Your task to perform on an android device: Go to privacy settings Image 0: 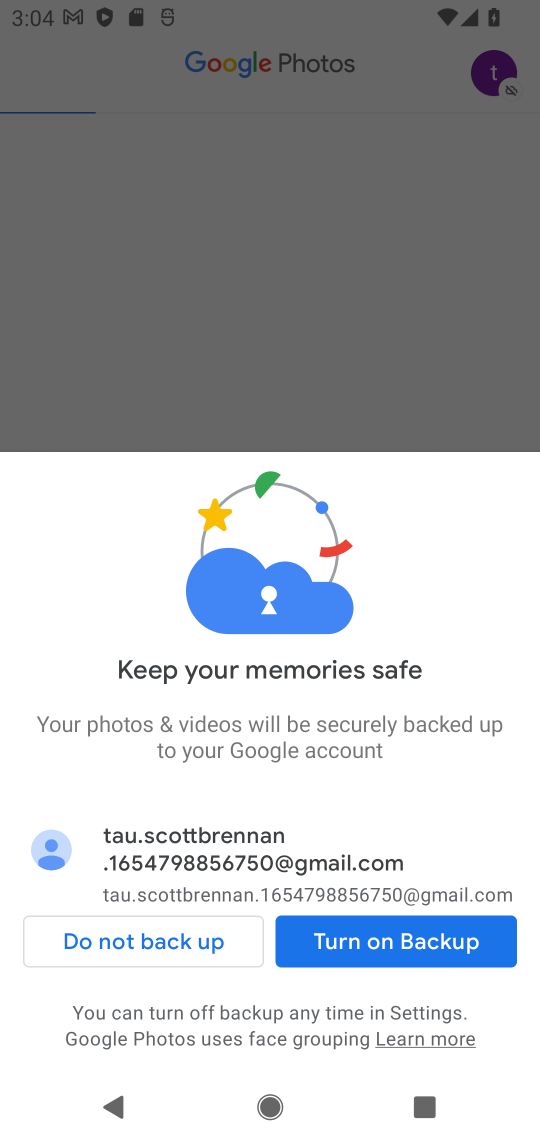
Step 0: press home button
Your task to perform on an android device: Go to privacy settings Image 1: 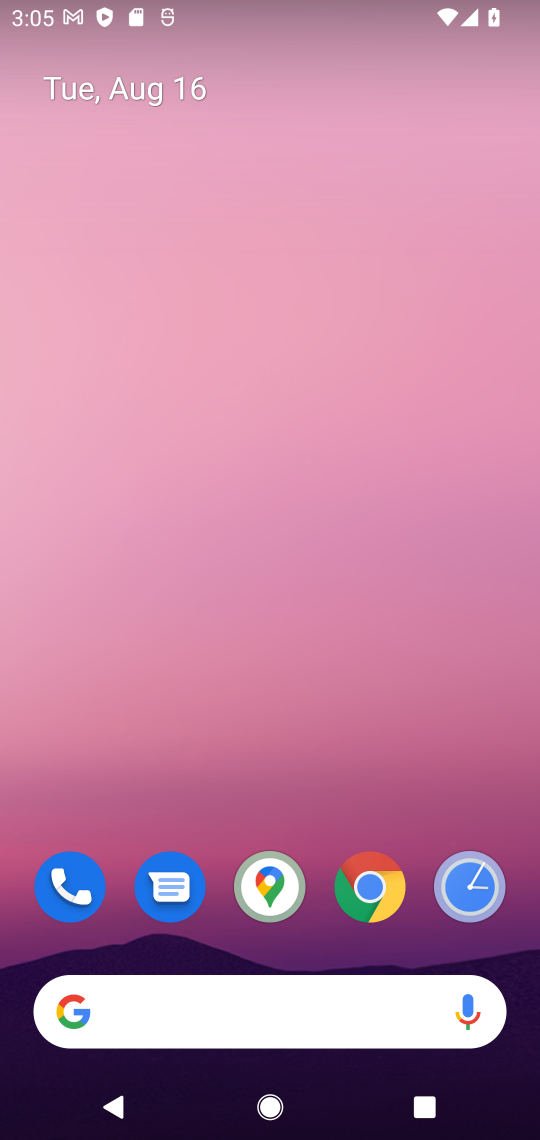
Step 1: drag from (369, 738) to (332, 96)
Your task to perform on an android device: Go to privacy settings Image 2: 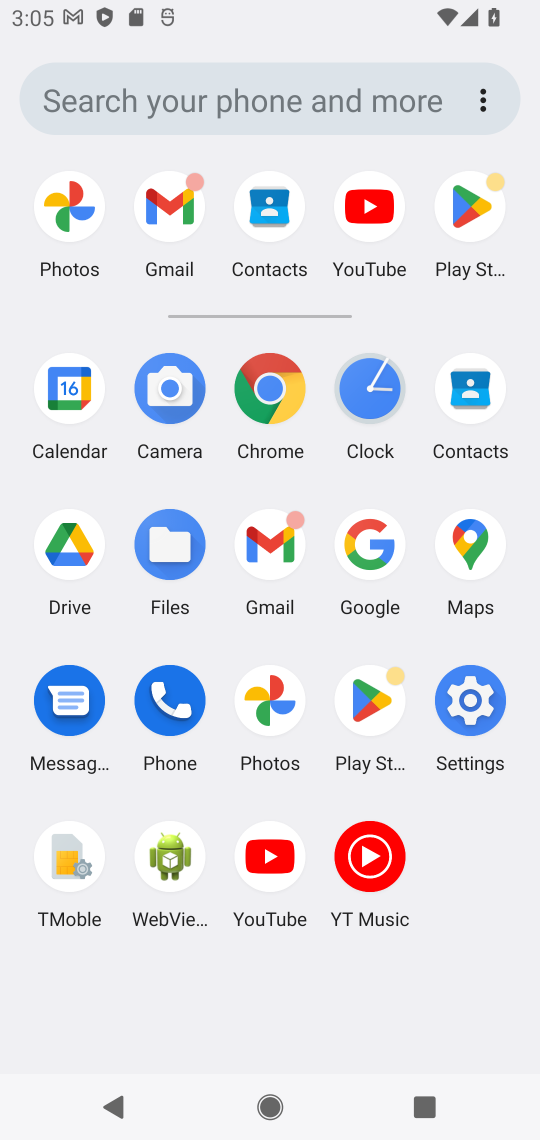
Step 2: click (482, 703)
Your task to perform on an android device: Go to privacy settings Image 3: 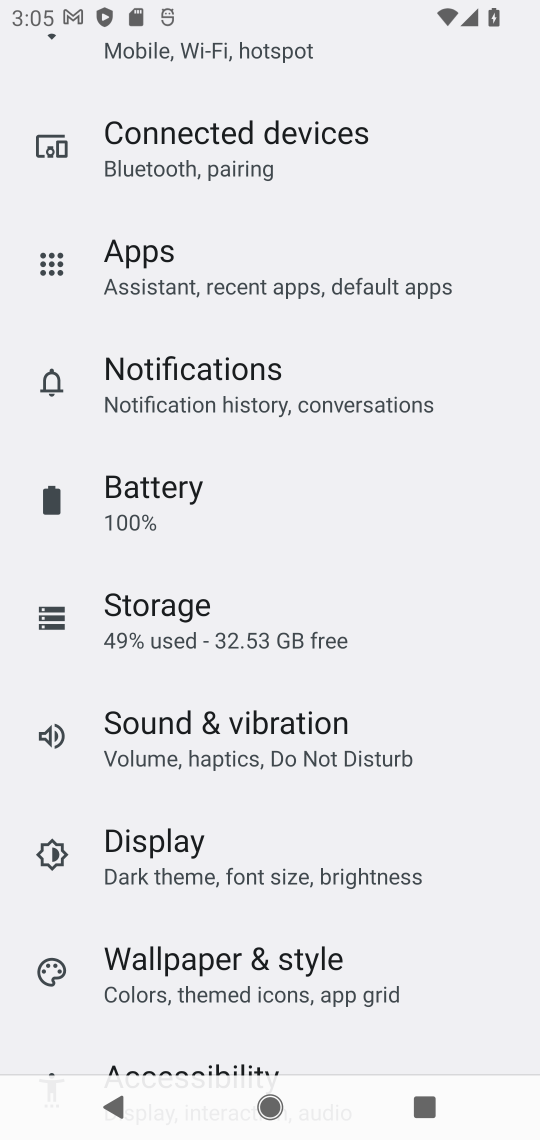
Step 3: drag from (438, 891) to (411, 188)
Your task to perform on an android device: Go to privacy settings Image 4: 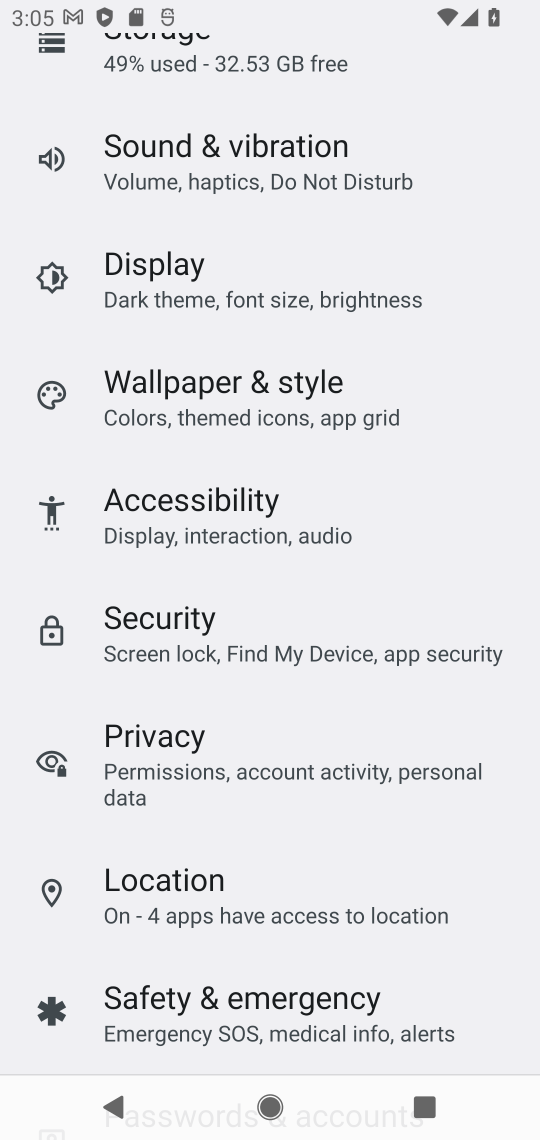
Step 4: click (223, 785)
Your task to perform on an android device: Go to privacy settings Image 5: 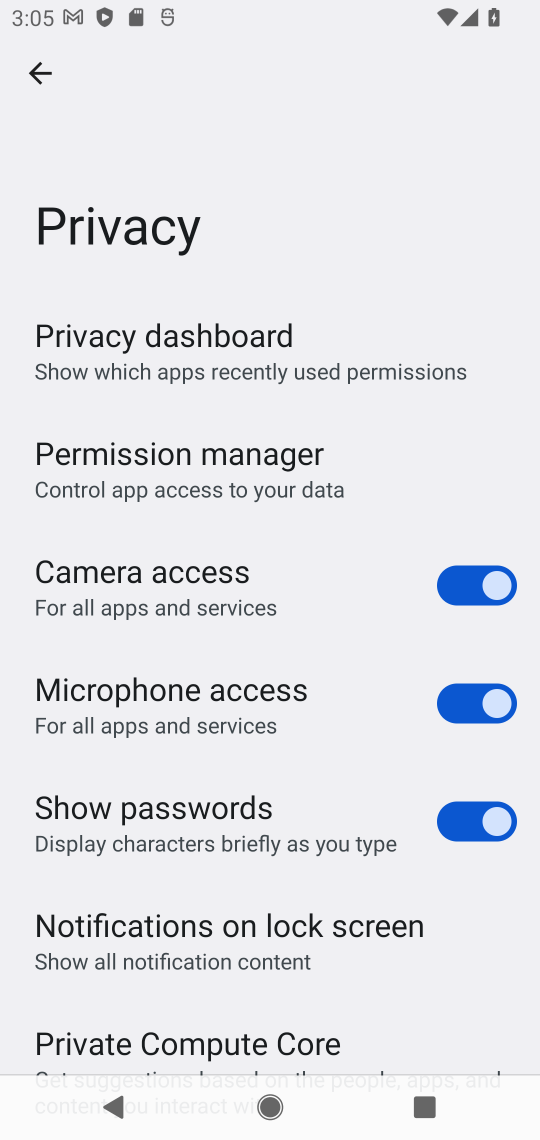
Step 5: task complete